Your task to perform on an android device: Open settings on Google Maps Image 0: 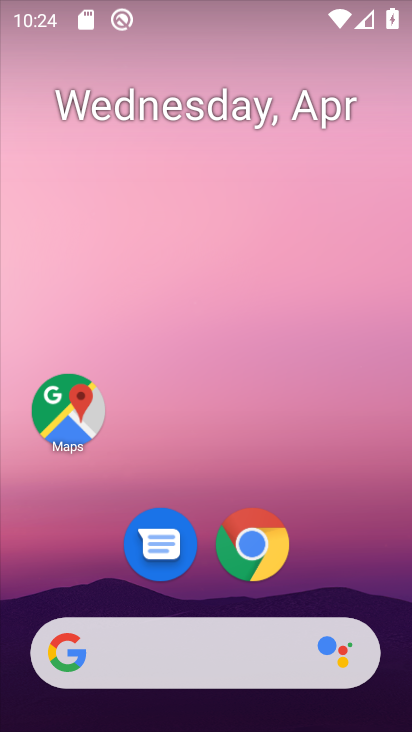
Step 0: drag from (381, 191) to (227, 240)
Your task to perform on an android device: Open settings on Google Maps Image 1: 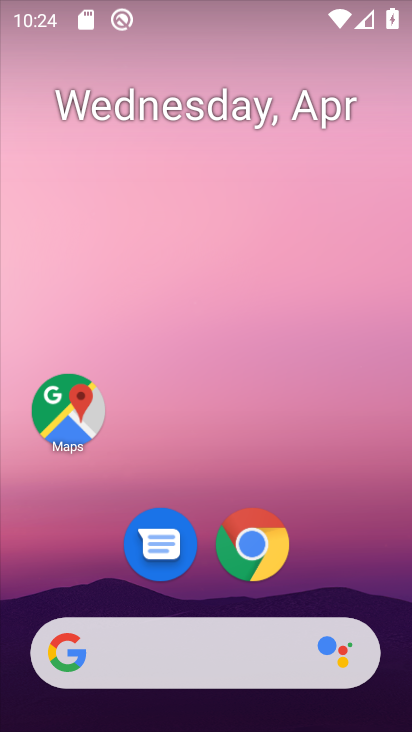
Step 1: drag from (376, 489) to (316, 2)
Your task to perform on an android device: Open settings on Google Maps Image 2: 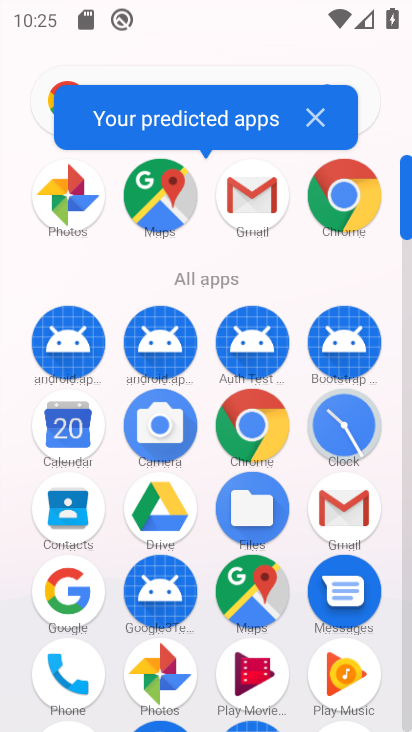
Step 2: click (182, 222)
Your task to perform on an android device: Open settings on Google Maps Image 3: 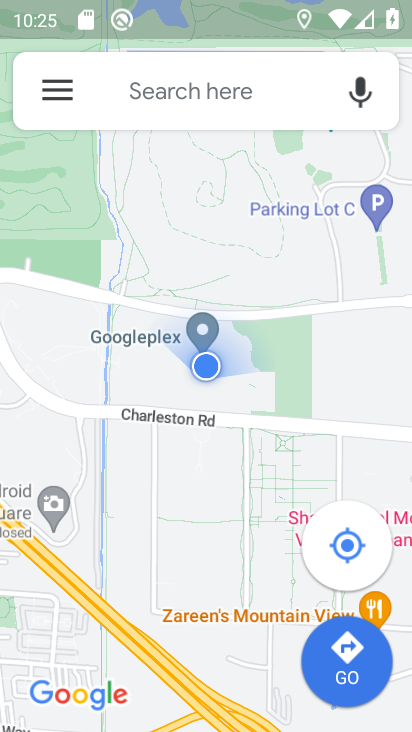
Step 3: click (63, 84)
Your task to perform on an android device: Open settings on Google Maps Image 4: 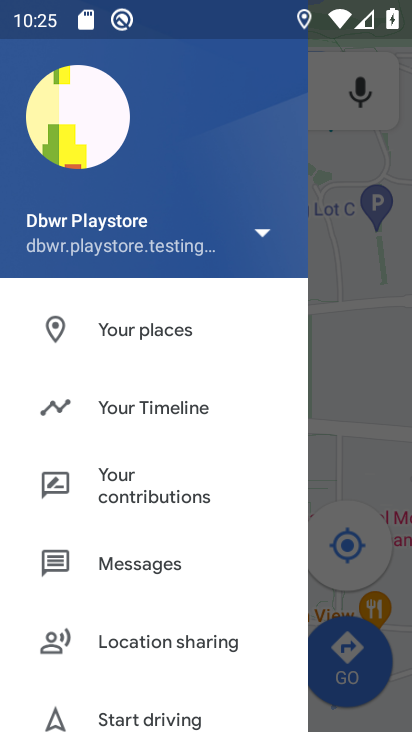
Step 4: click (88, 430)
Your task to perform on an android device: Open settings on Google Maps Image 5: 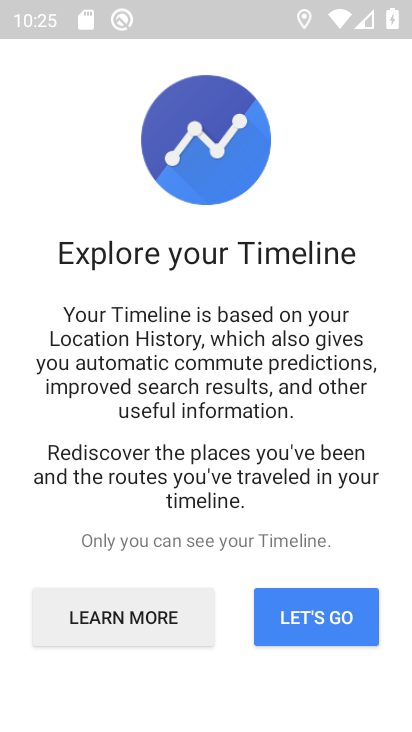
Step 5: click (366, 616)
Your task to perform on an android device: Open settings on Google Maps Image 6: 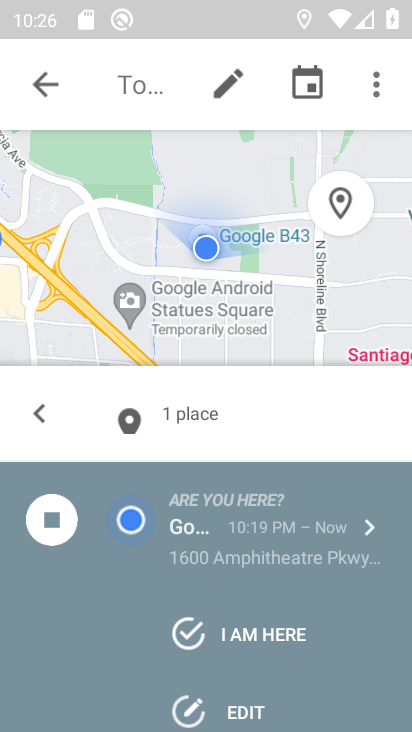
Step 6: drag from (384, 85) to (354, 140)
Your task to perform on an android device: Open settings on Google Maps Image 7: 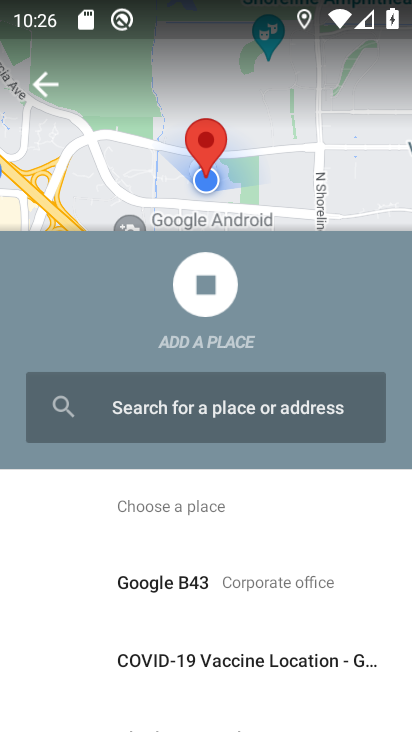
Step 7: click (38, 71)
Your task to perform on an android device: Open settings on Google Maps Image 8: 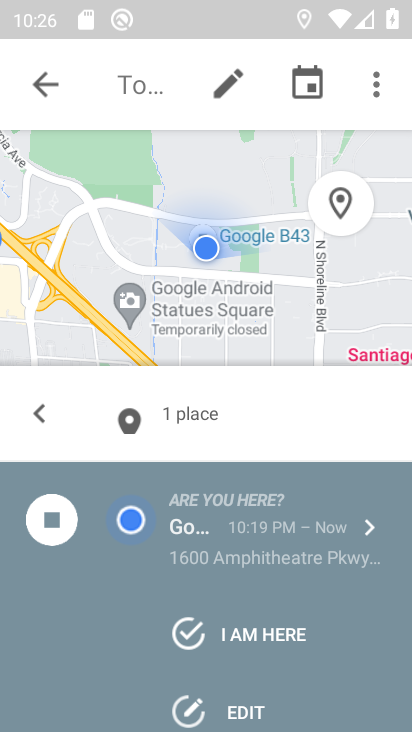
Step 8: click (369, 83)
Your task to perform on an android device: Open settings on Google Maps Image 9: 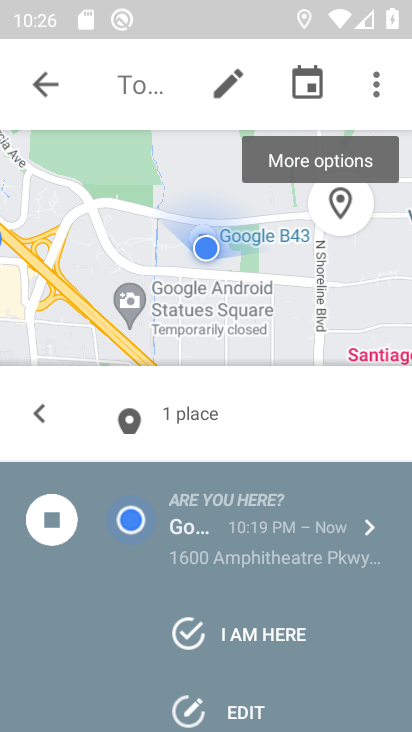
Step 9: click (369, 83)
Your task to perform on an android device: Open settings on Google Maps Image 10: 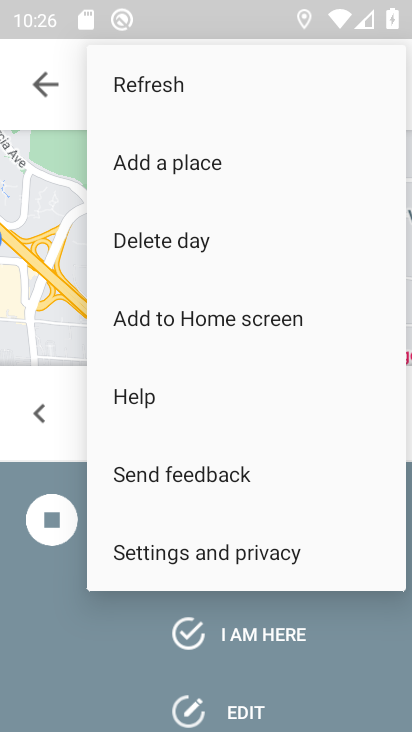
Step 10: click (164, 557)
Your task to perform on an android device: Open settings on Google Maps Image 11: 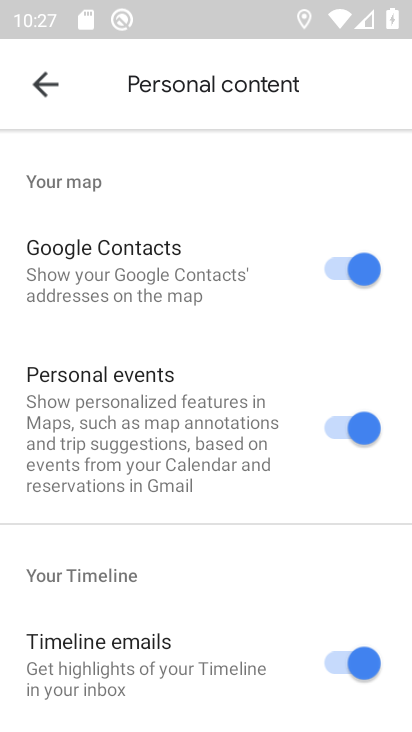
Step 11: task complete